Your task to perform on an android device: turn pop-ups on in chrome Image 0: 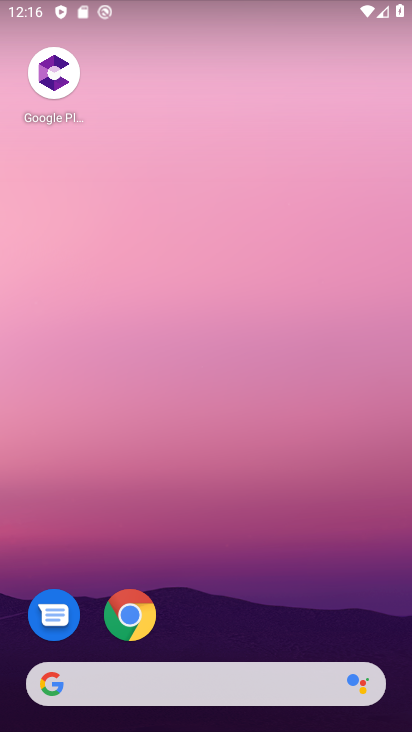
Step 0: click (151, 617)
Your task to perform on an android device: turn pop-ups on in chrome Image 1: 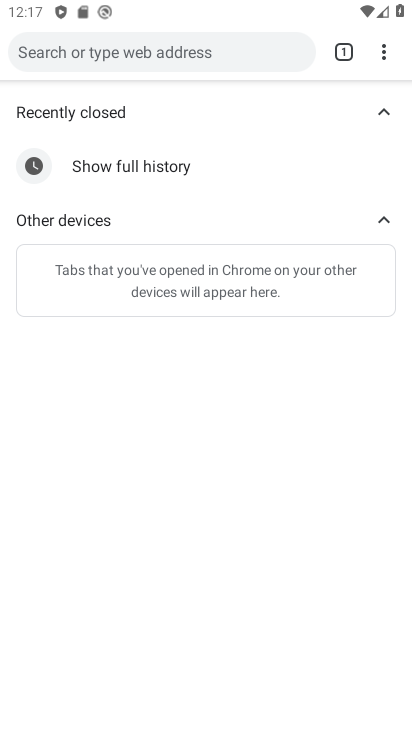
Step 1: click (378, 52)
Your task to perform on an android device: turn pop-ups on in chrome Image 2: 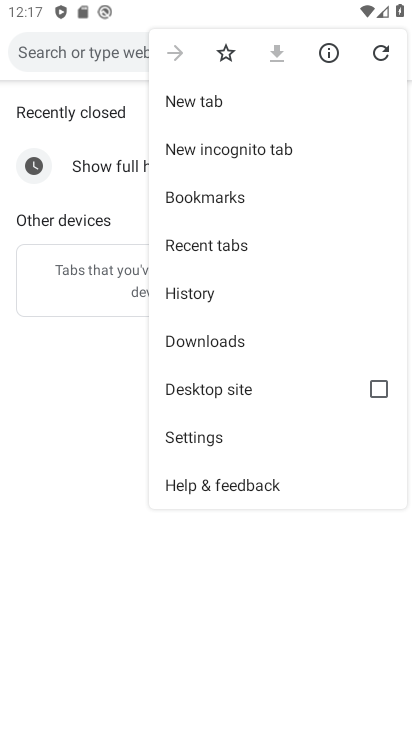
Step 2: click (205, 441)
Your task to perform on an android device: turn pop-ups on in chrome Image 3: 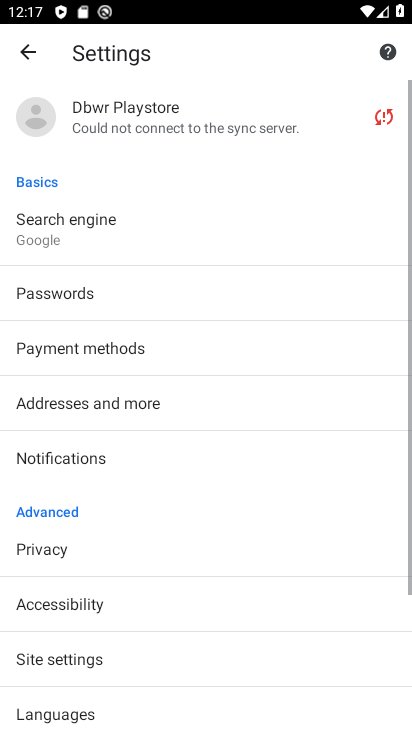
Step 3: drag from (141, 612) to (157, 441)
Your task to perform on an android device: turn pop-ups on in chrome Image 4: 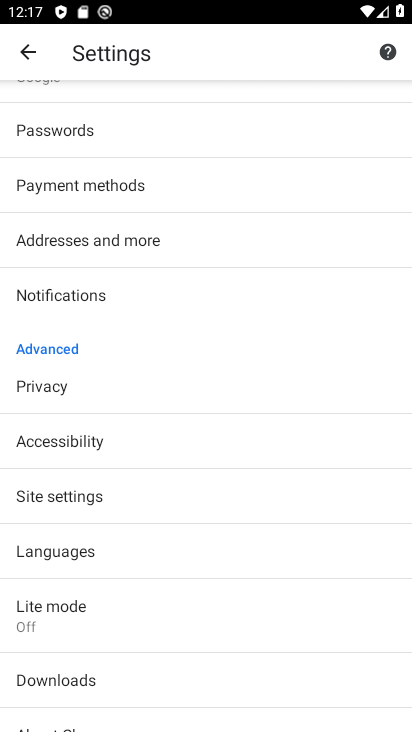
Step 4: click (59, 488)
Your task to perform on an android device: turn pop-ups on in chrome Image 5: 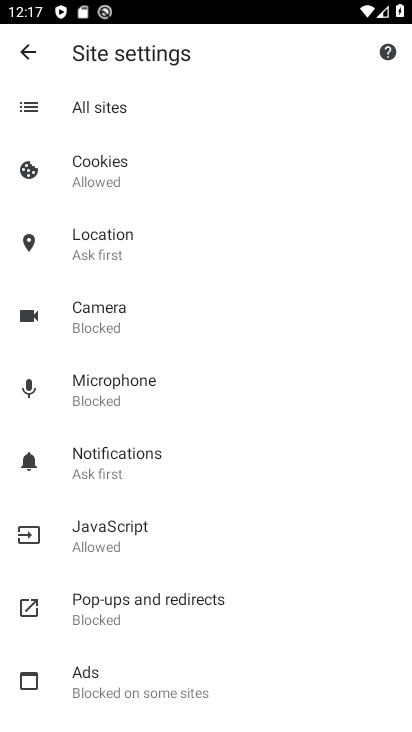
Step 5: click (100, 610)
Your task to perform on an android device: turn pop-ups on in chrome Image 6: 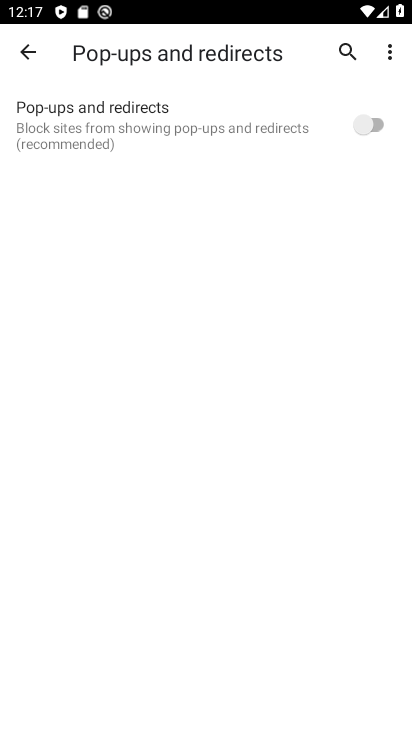
Step 6: click (369, 126)
Your task to perform on an android device: turn pop-ups on in chrome Image 7: 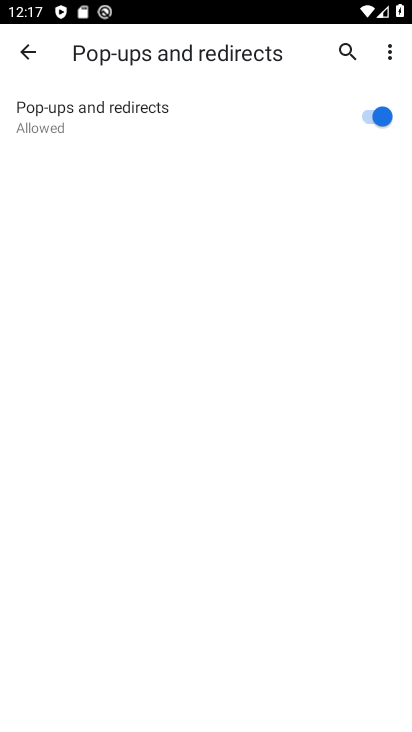
Step 7: task complete